Your task to perform on an android device: uninstall "Messages" Image 0: 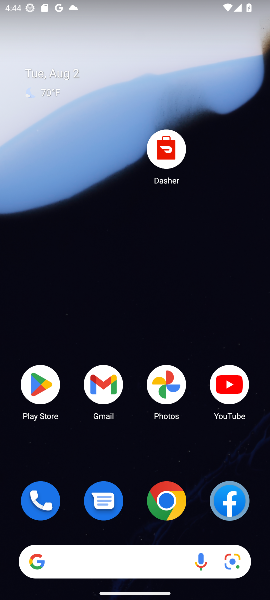
Step 0: click (99, 510)
Your task to perform on an android device: uninstall "Messages" Image 1: 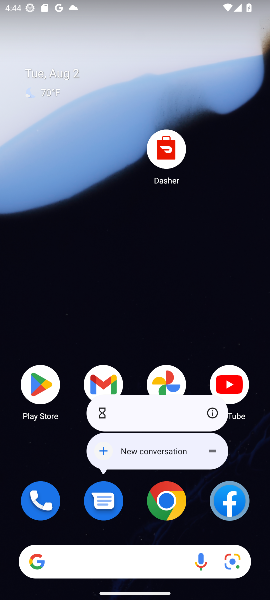
Step 1: click (210, 414)
Your task to perform on an android device: uninstall "Messages" Image 2: 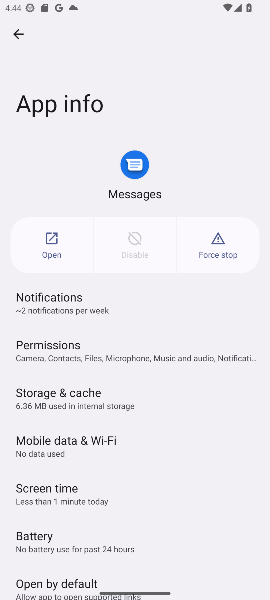
Step 2: task complete